Your task to perform on an android device: Search for pizza restaurants on Maps Image 0: 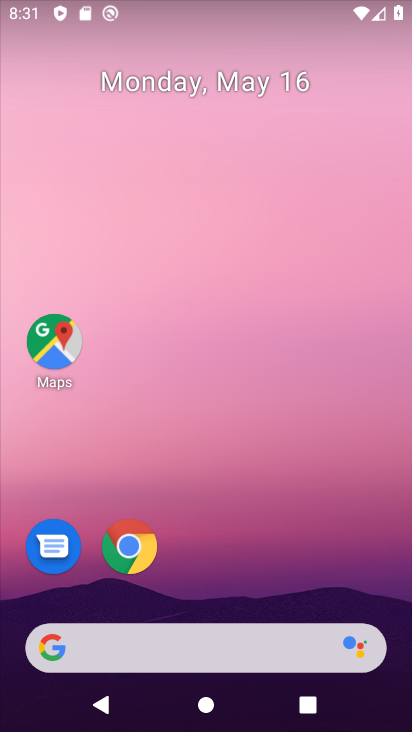
Step 0: click (70, 361)
Your task to perform on an android device: Search for pizza restaurants on Maps Image 1: 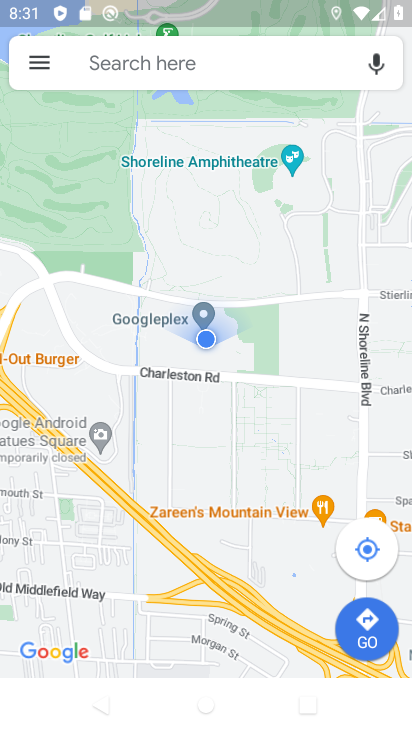
Step 1: click (227, 65)
Your task to perform on an android device: Search for pizza restaurants on Maps Image 2: 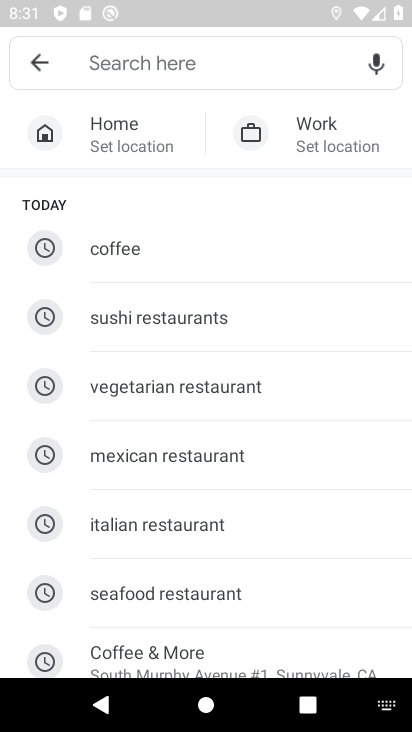
Step 2: type "pizza restaurants"
Your task to perform on an android device: Search for pizza restaurants on Maps Image 3: 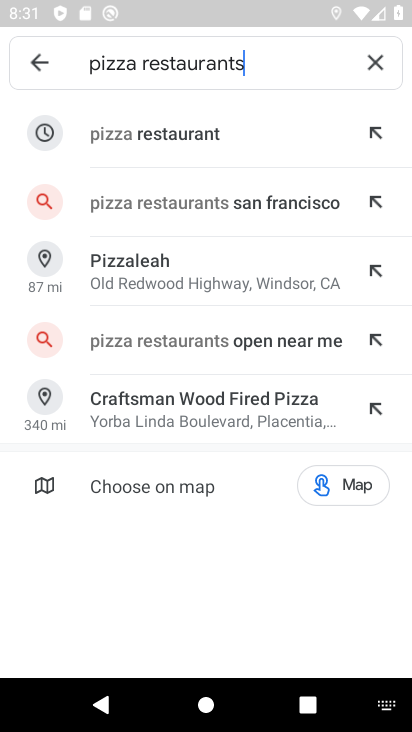
Step 3: click (229, 146)
Your task to perform on an android device: Search for pizza restaurants on Maps Image 4: 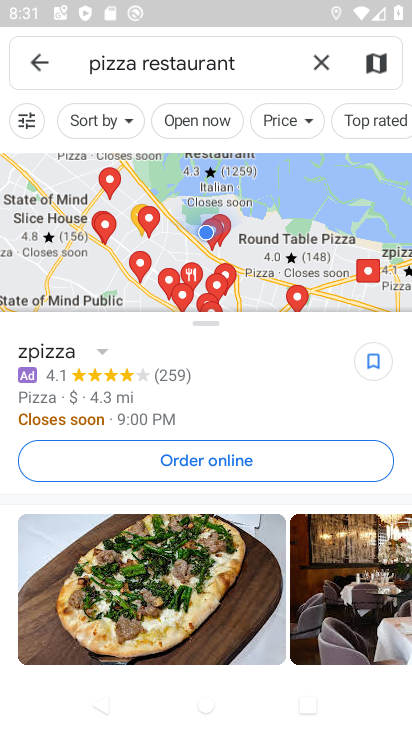
Step 4: task complete